Your task to perform on an android device: change timer sound Image 0: 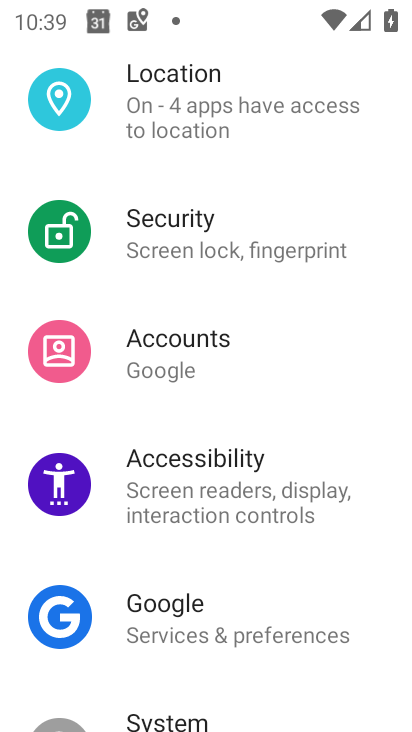
Step 0: press home button
Your task to perform on an android device: change timer sound Image 1: 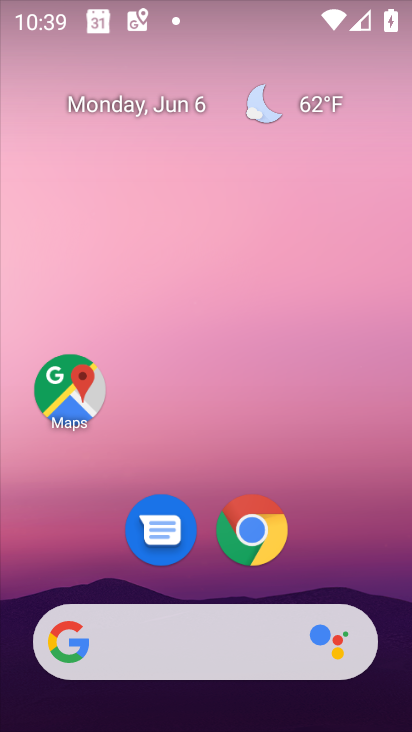
Step 1: drag from (334, 562) to (326, 116)
Your task to perform on an android device: change timer sound Image 2: 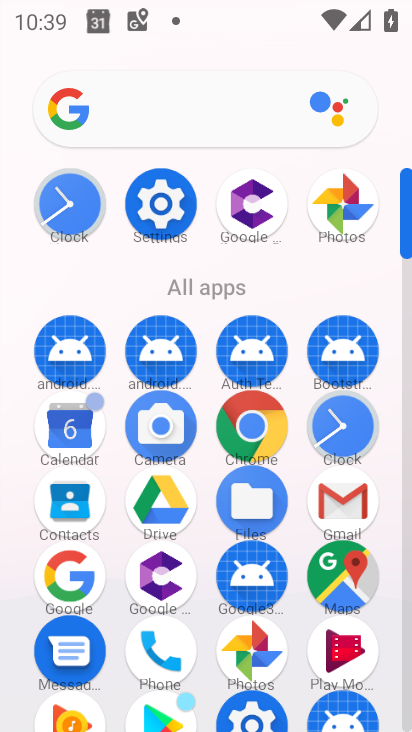
Step 2: click (344, 431)
Your task to perform on an android device: change timer sound Image 3: 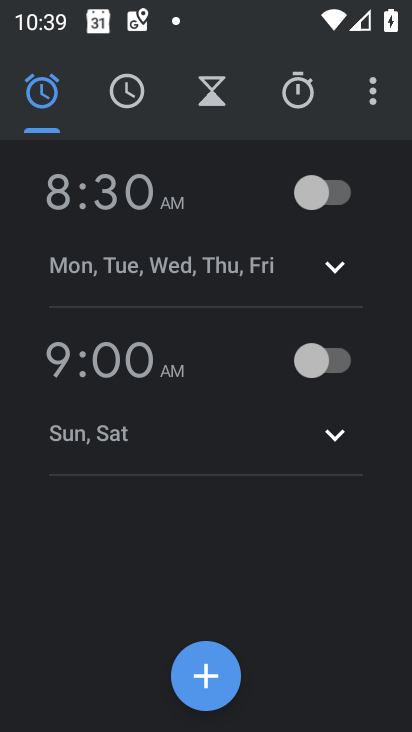
Step 3: click (359, 102)
Your task to perform on an android device: change timer sound Image 4: 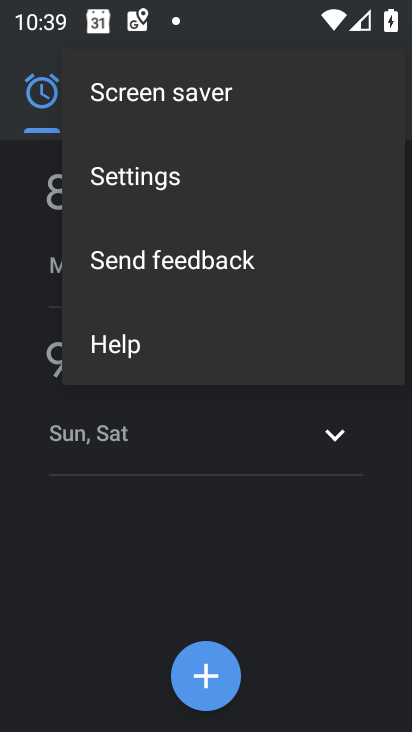
Step 4: click (182, 168)
Your task to perform on an android device: change timer sound Image 5: 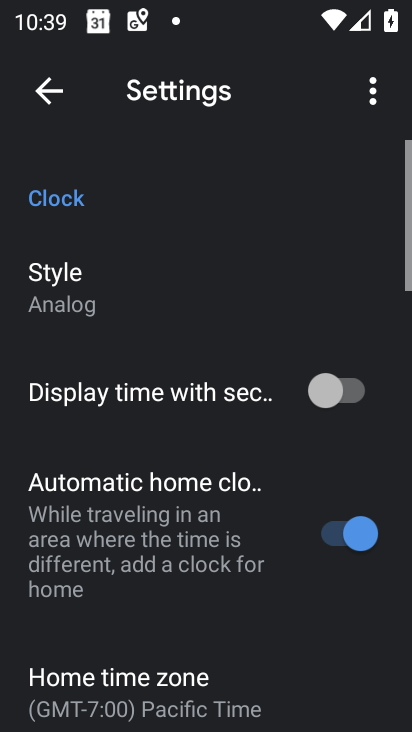
Step 5: drag from (182, 558) to (136, 136)
Your task to perform on an android device: change timer sound Image 6: 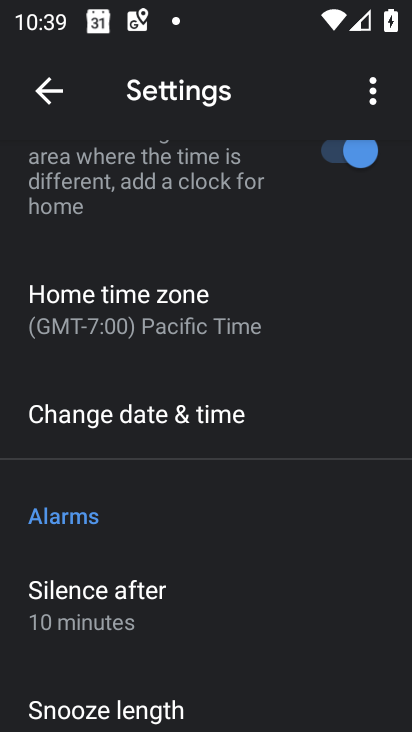
Step 6: drag from (166, 529) to (171, 340)
Your task to perform on an android device: change timer sound Image 7: 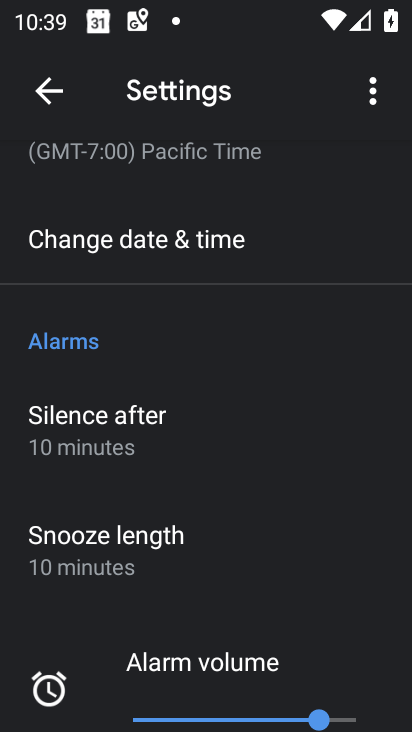
Step 7: drag from (201, 543) to (171, 304)
Your task to perform on an android device: change timer sound Image 8: 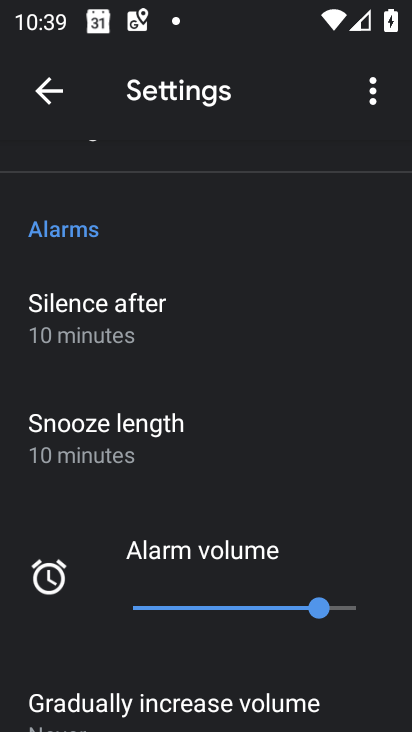
Step 8: drag from (170, 669) to (147, 376)
Your task to perform on an android device: change timer sound Image 9: 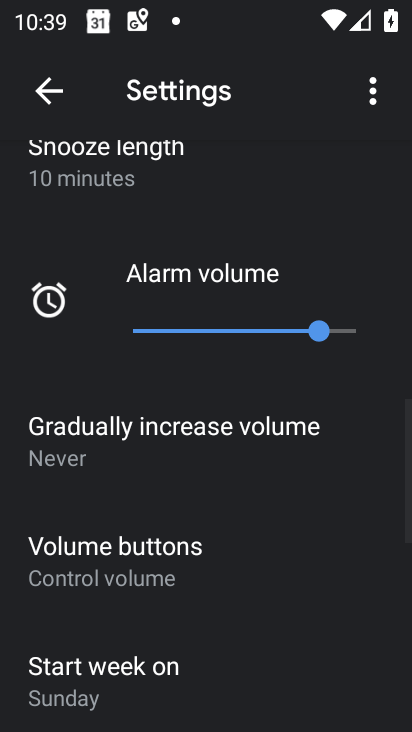
Step 9: drag from (175, 643) to (168, 363)
Your task to perform on an android device: change timer sound Image 10: 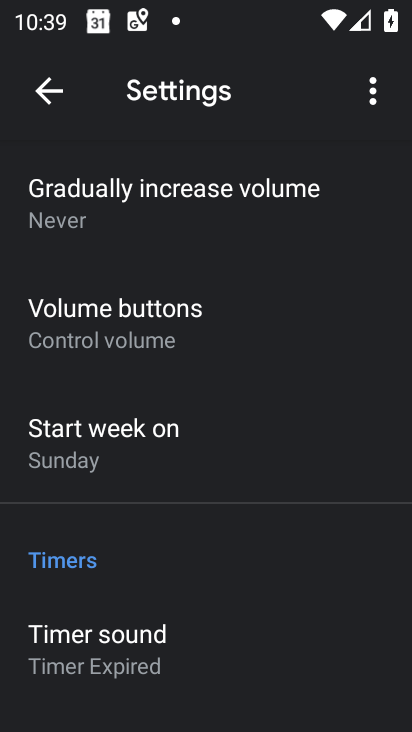
Step 10: click (169, 650)
Your task to perform on an android device: change timer sound Image 11: 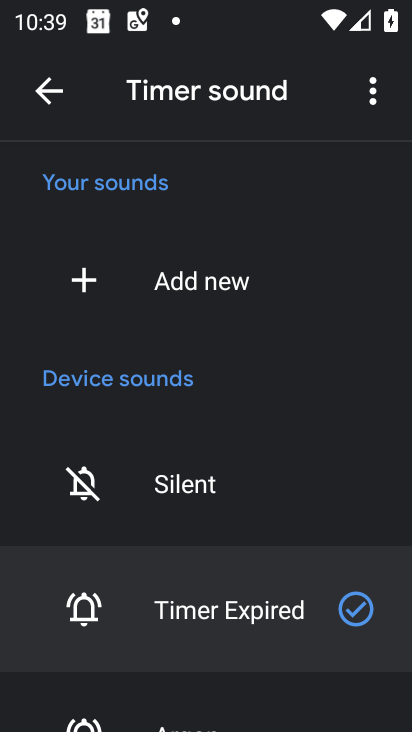
Step 11: click (183, 474)
Your task to perform on an android device: change timer sound Image 12: 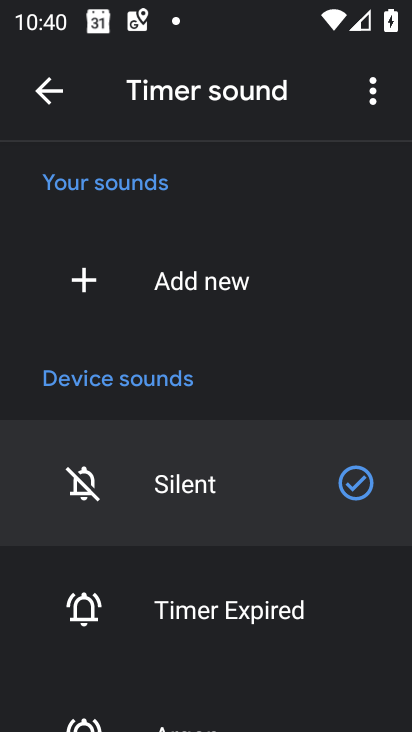
Step 12: task complete